Your task to perform on an android device: turn off airplane mode Image 0: 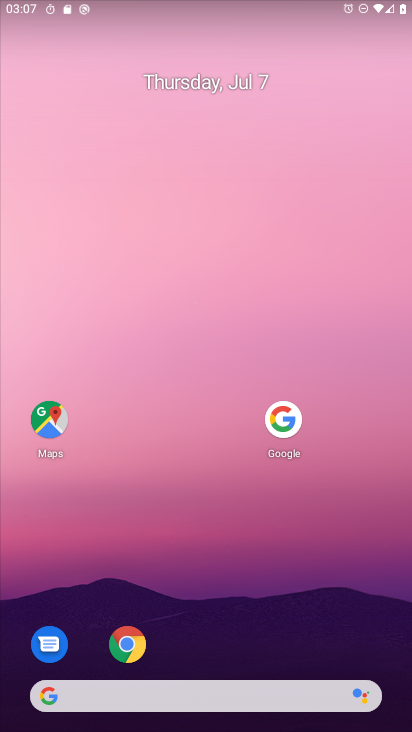
Step 0: drag from (201, 692) to (347, 15)
Your task to perform on an android device: turn off airplane mode Image 1: 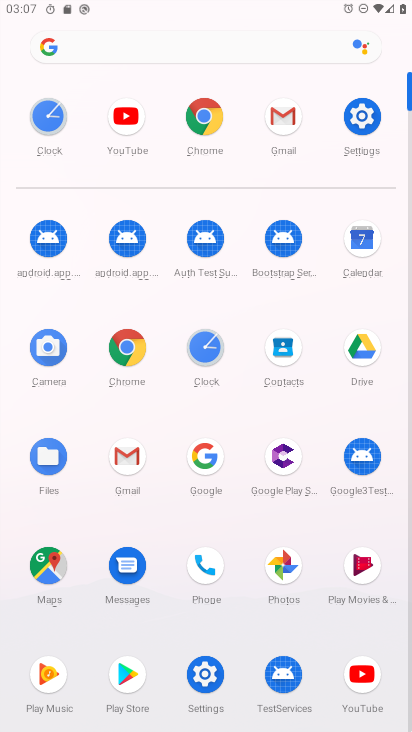
Step 1: click (360, 124)
Your task to perform on an android device: turn off airplane mode Image 2: 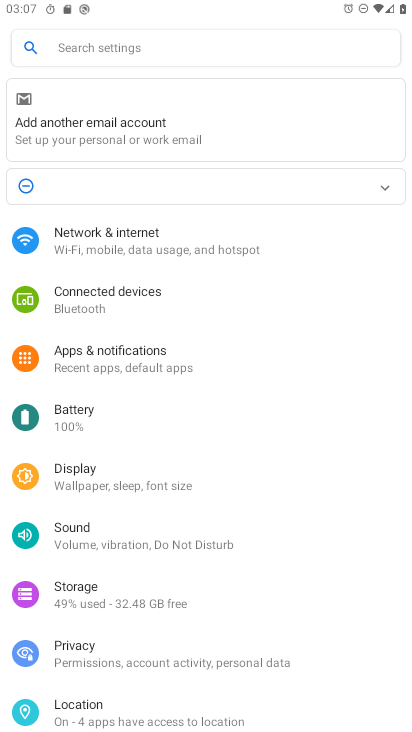
Step 2: click (125, 235)
Your task to perform on an android device: turn off airplane mode Image 3: 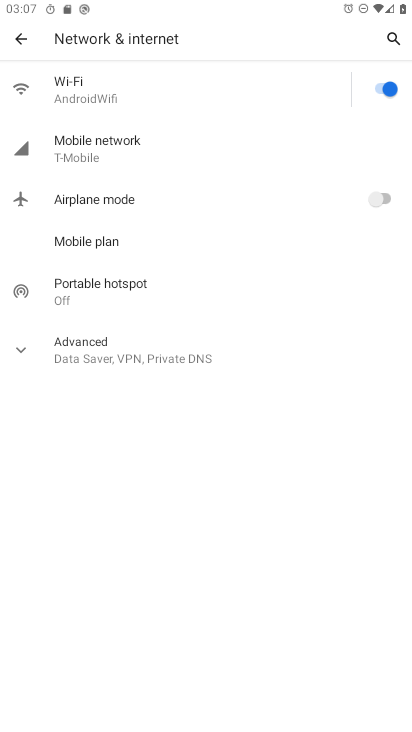
Step 3: task complete